Your task to perform on an android device: Open calendar and show me the first week of next month Image 0: 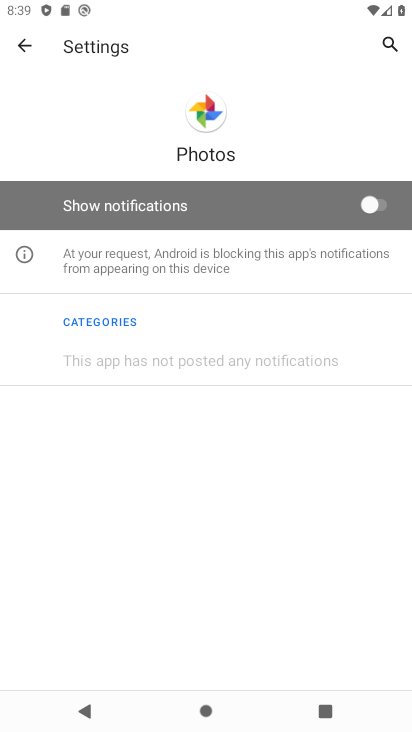
Step 0: press home button
Your task to perform on an android device: Open calendar and show me the first week of next month Image 1: 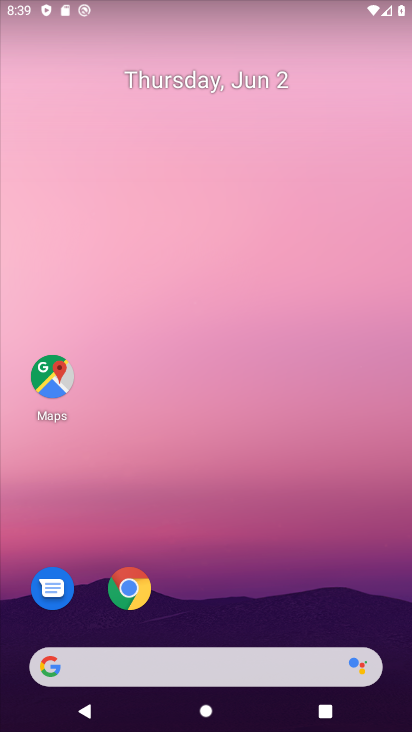
Step 1: drag from (324, 566) to (322, 139)
Your task to perform on an android device: Open calendar and show me the first week of next month Image 2: 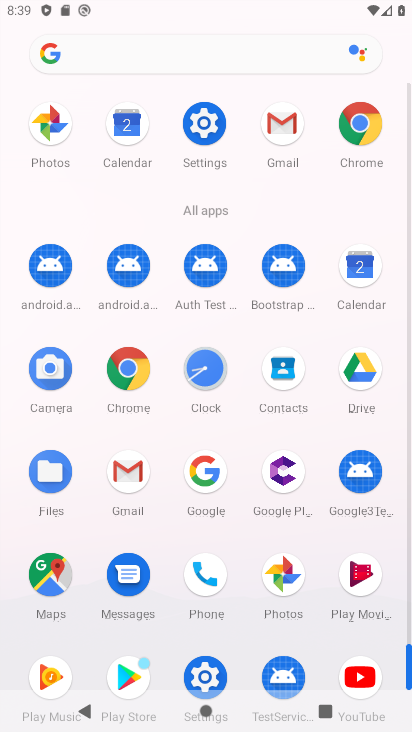
Step 2: click (361, 251)
Your task to perform on an android device: Open calendar and show me the first week of next month Image 3: 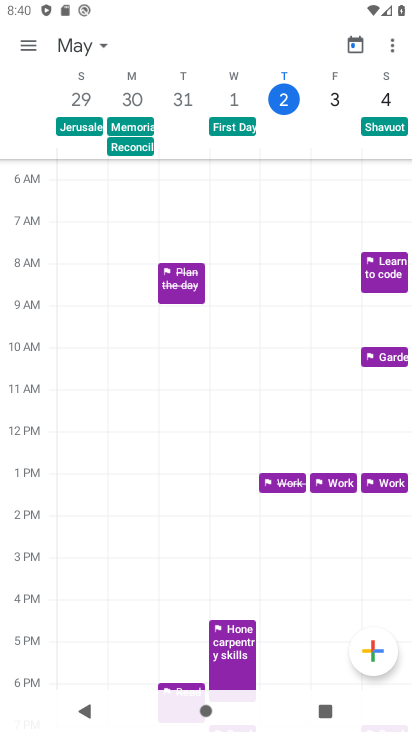
Step 3: click (94, 39)
Your task to perform on an android device: Open calendar and show me the first week of next month Image 4: 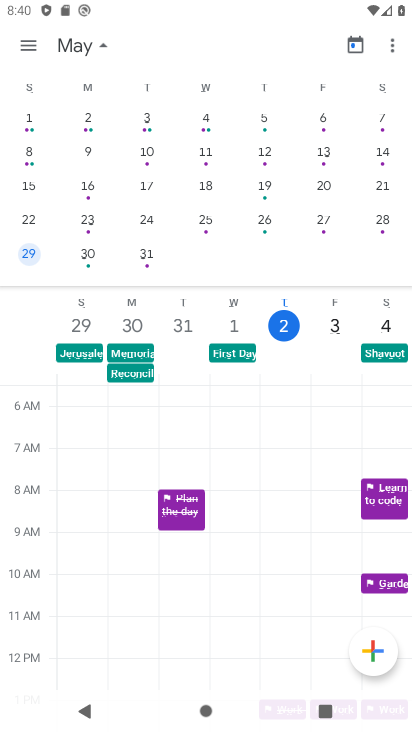
Step 4: drag from (377, 231) to (36, 213)
Your task to perform on an android device: Open calendar and show me the first week of next month Image 5: 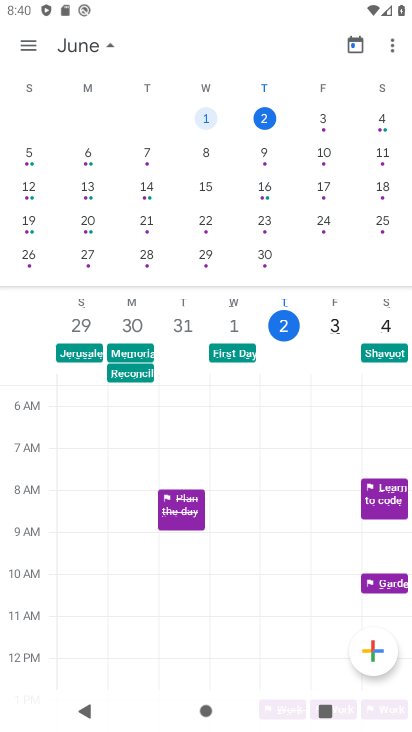
Step 5: drag from (379, 219) to (3, 177)
Your task to perform on an android device: Open calendar and show me the first week of next month Image 6: 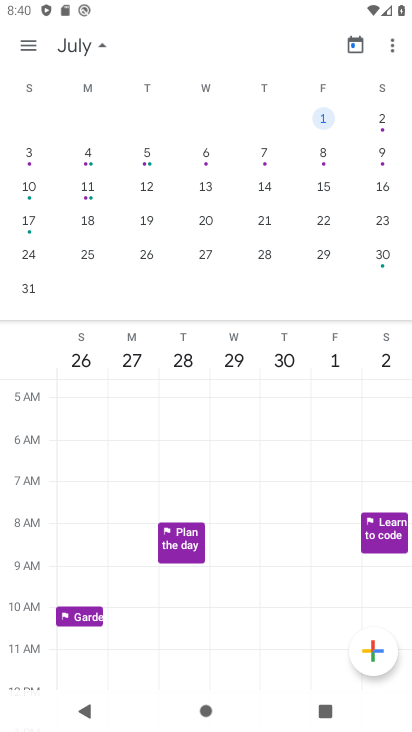
Step 6: click (91, 152)
Your task to perform on an android device: Open calendar and show me the first week of next month Image 7: 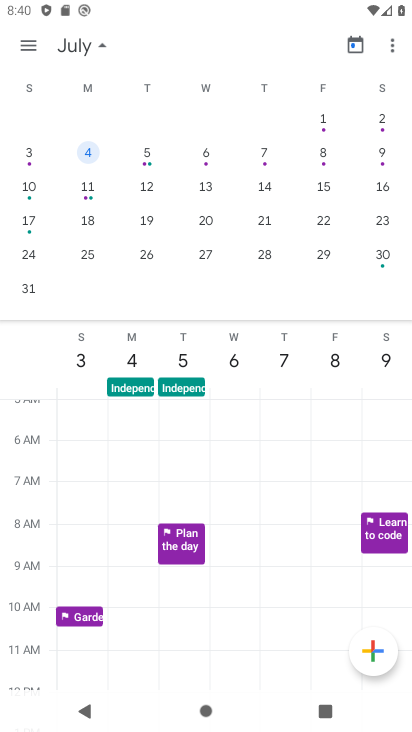
Step 7: task complete